Your task to perform on an android device: delete a single message in the gmail app Image 0: 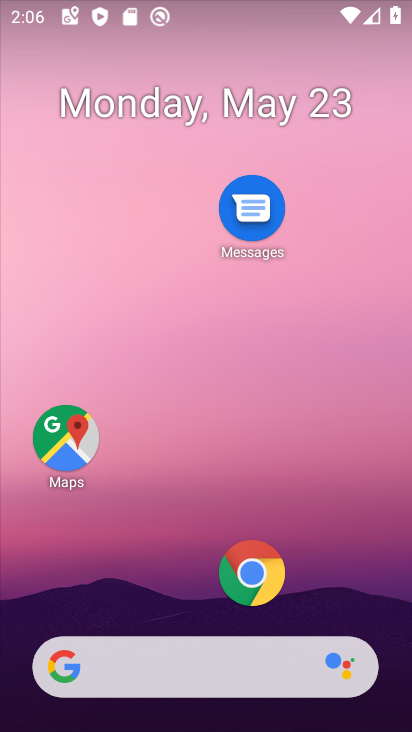
Step 0: drag from (305, 403) to (353, 0)
Your task to perform on an android device: delete a single message in the gmail app Image 1: 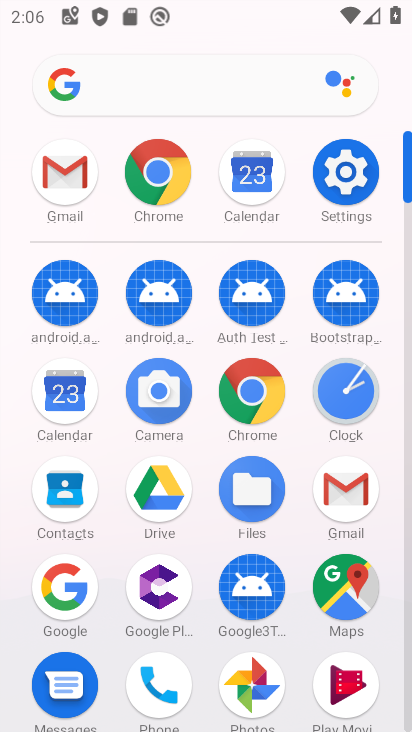
Step 1: click (342, 507)
Your task to perform on an android device: delete a single message in the gmail app Image 2: 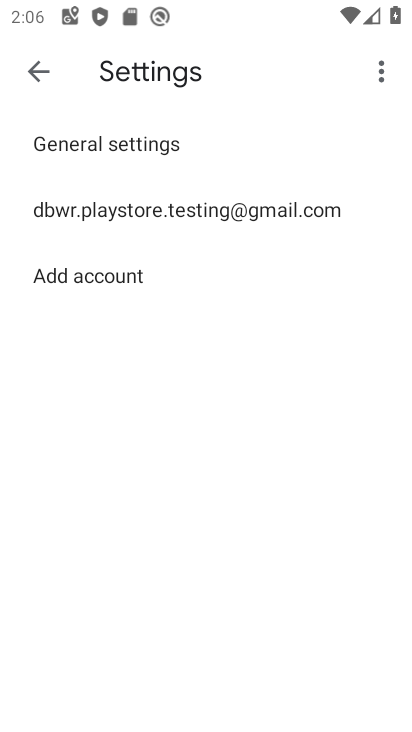
Step 2: press back button
Your task to perform on an android device: delete a single message in the gmail app Image 3: 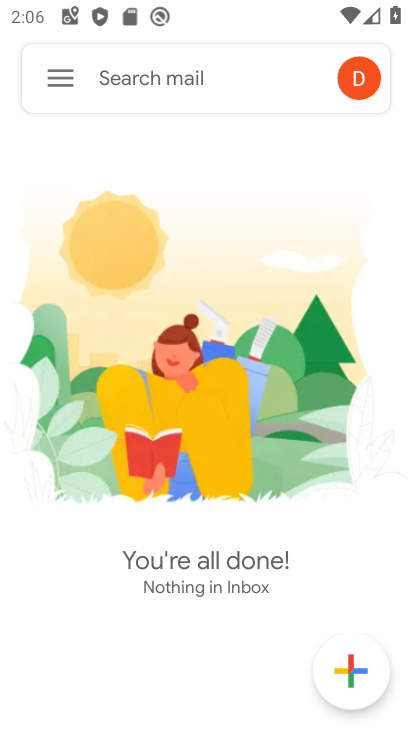
Step 3: click (45, 65)
Your task to perform on an android device: delete a single message in the gmail app Image 4: 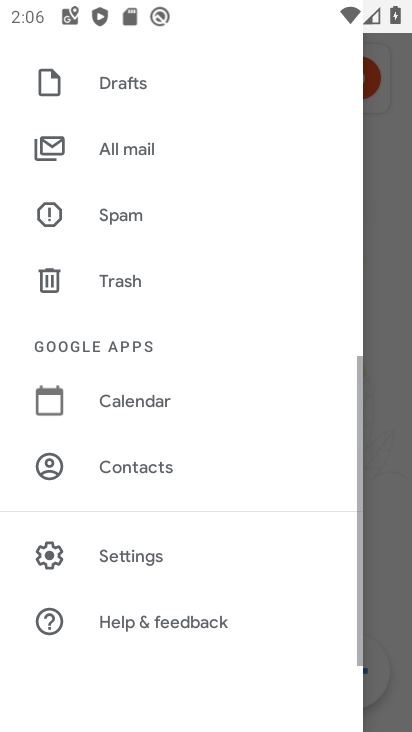
Step 4: drag from (196, 137) to (312, 670)
Your task to perform on an android device: delete a single message in the gmail app Image 5: 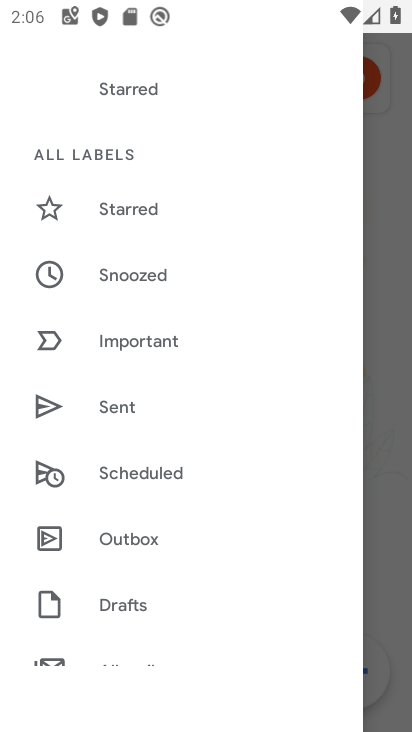
Step 5: click (142, 224)
Your task to perform on an android device: delete a single message in the gmail app Image 6: 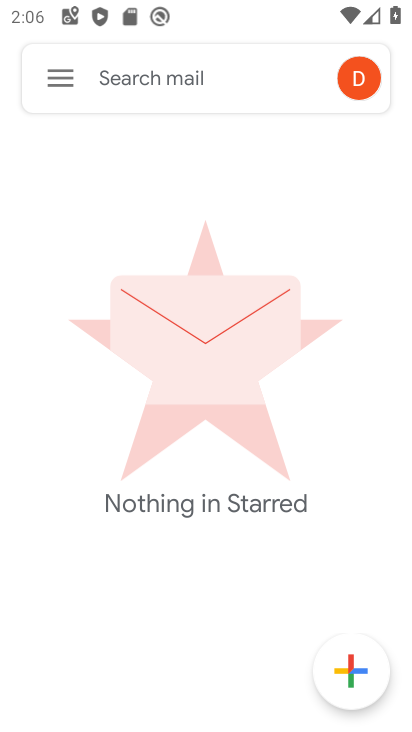
Step 6: task complete